Your task to perform on an android device: Clear the shopping cart on newegg.com. Search for macbook pro 15 inch on newegg.com, select the first entry, and add it to the cart. Image 0: 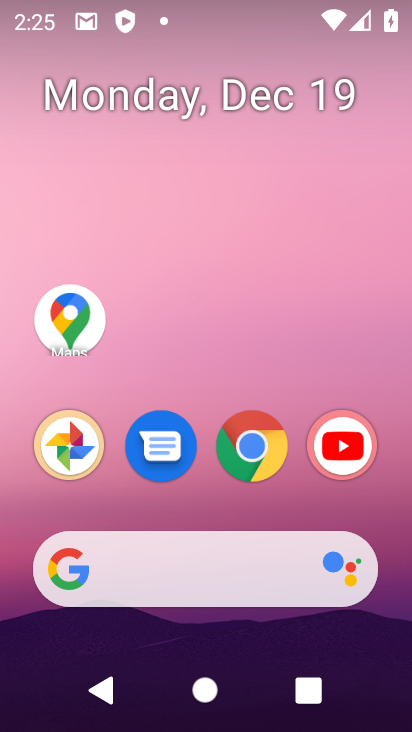
Step 0: click (234, 461)
Your task to perform on an android device: Clear the shopping cart on newegg.com. Search for macbook pro 15 inch on newegg.com, select the first entry, and add it to the cart. Image 1: 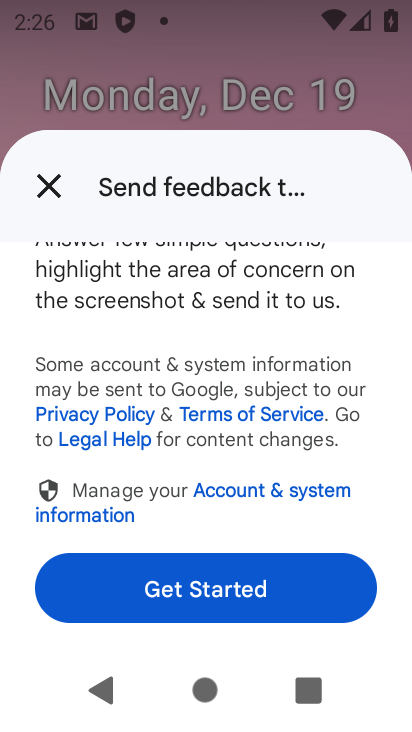
Step 1: click (48, 180)
Your task to perform on an android device: Clear the shopping cart on newegg.com. Search for macbook pro 15 inch on newegg.com, select the first entry, and add it to the cart. Image 2: 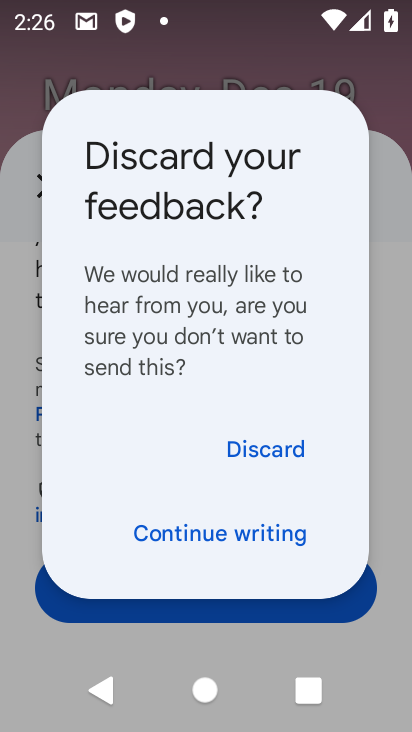
Step 2: click (279, 449)
Your task to perform on an android device: Clear the shopping cart on newegg.com. Search for macbook pro 15 inch on newegg.com, select the first entry, and add it to the cart. Image 3: 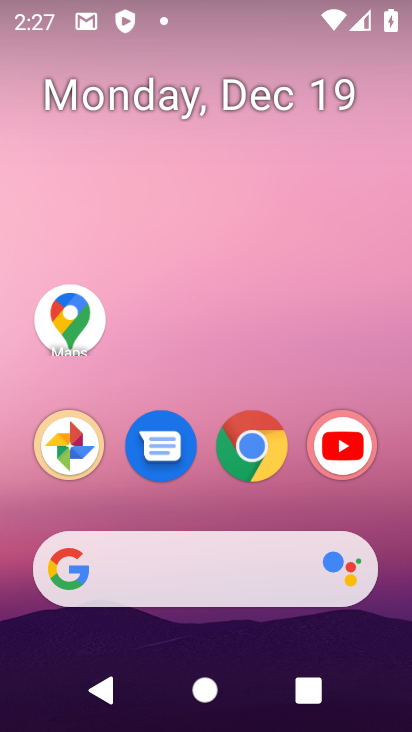
Step 3: task complete